Your task to perform on an android device: change keyboard looks Image 0: 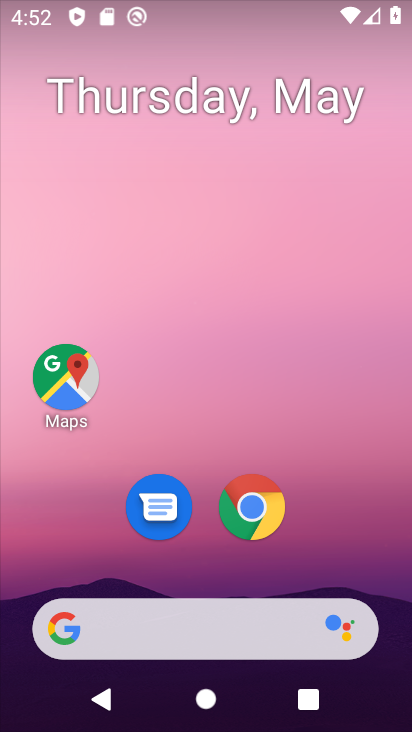
Step 0: drag from (320, 512) to (282, 0)
Your task to perform on an android device: change keyboard looks Image 1: 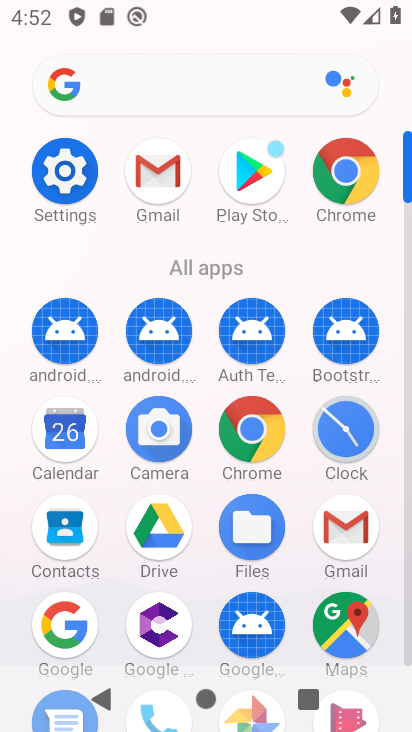
Step 1: click (68, 152)
Your task to perform on an android device: change keyboard looks Image 2: 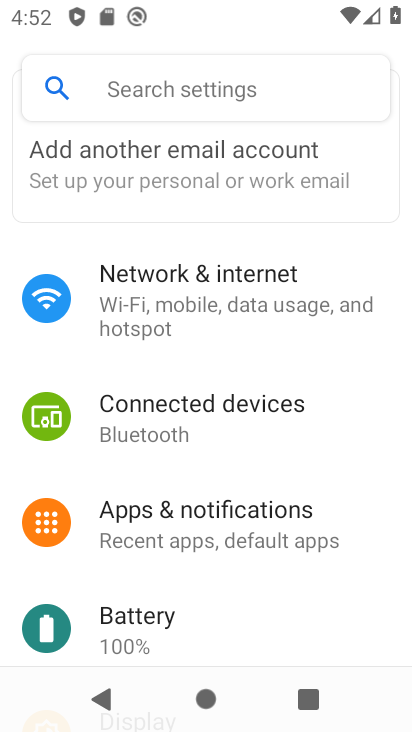
Step 2: drag from (210, 573) to (284, 49)
Your task to perform on an android device: change keyboard looks Image 3: 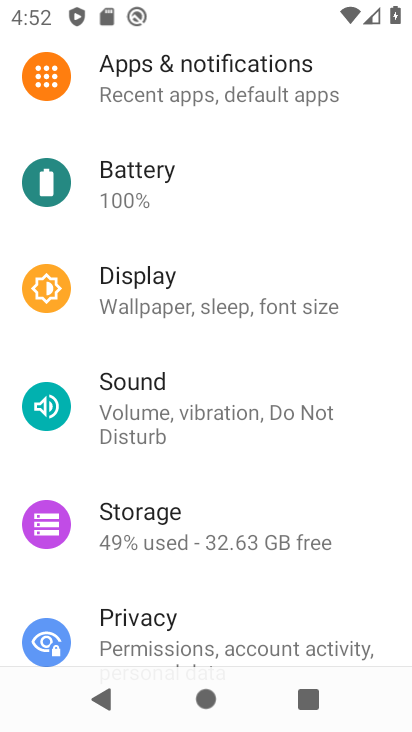
Step 3: drag from (184, 539) to (274, 195)
Your task to perform on an android device: change keyboard looks Image 4: 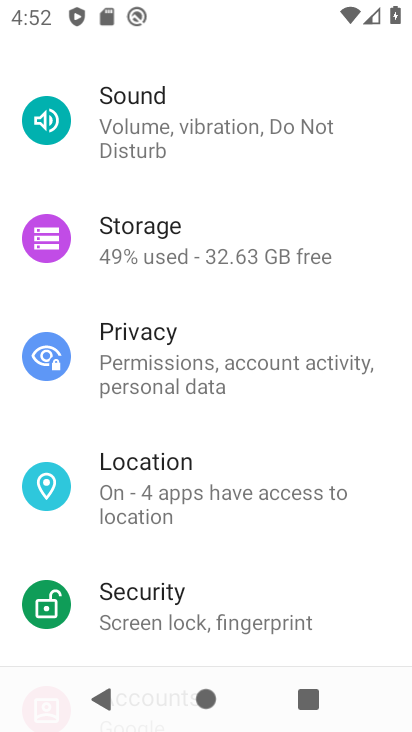
Step 4: drag from (216, 543) to (288, 263)
Your task to perform on an android device: change keyboard looks Image 5: 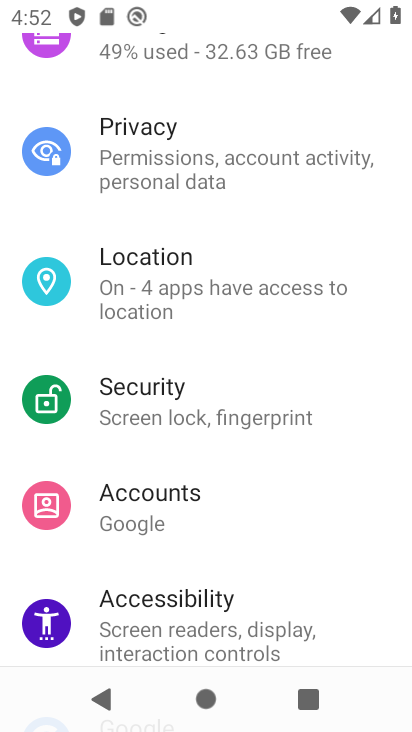
Step 5: drag from (277, 198) to (317, 116)
Your task to perform on an android device: change keyboard looks Image 6: 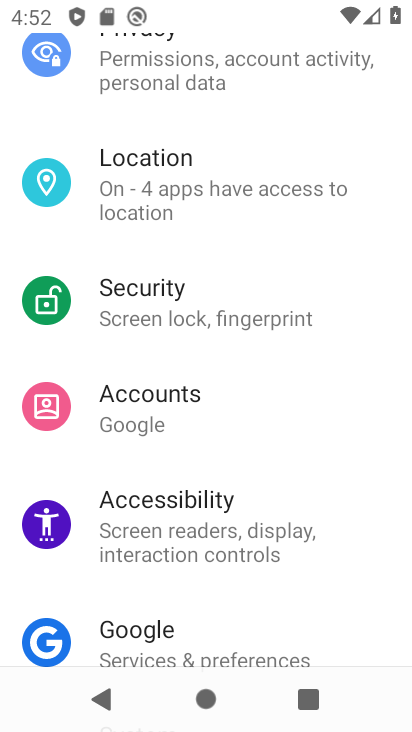
Step 6: drag from (272, 543) to (312, 83)
Your task to perform on an android device: change keyboard looks Image 7: 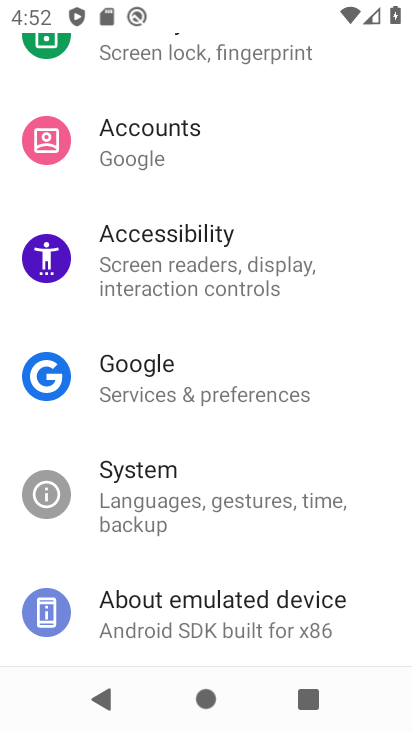
Step 7: click (155, 481)
Your task to perform on an android device: change keyboard looks Image 8: 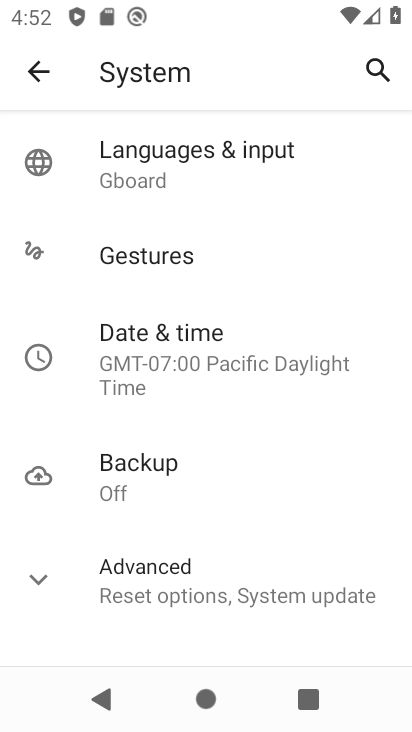
Step 8: click (182, 171)
Your task to perform on an android device: change keyboard looks Image 9: 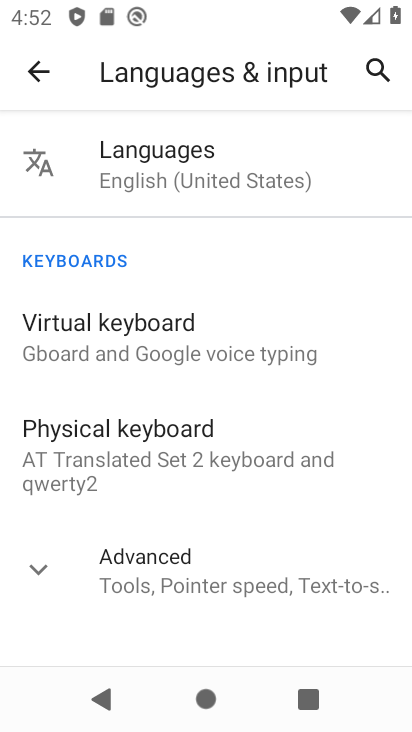
Step 9: click (164, 353)
Your task to perform on an android device: change keyboard looks Image 10: 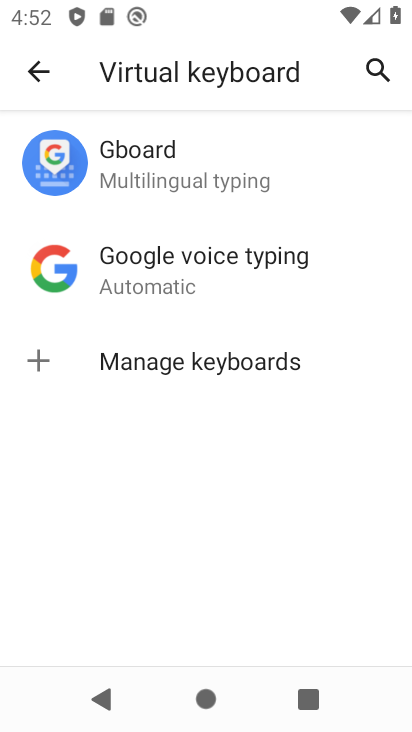
Step 10: click (178, 167)
Your task to perform on an android device: change keyboard looks Image 11: 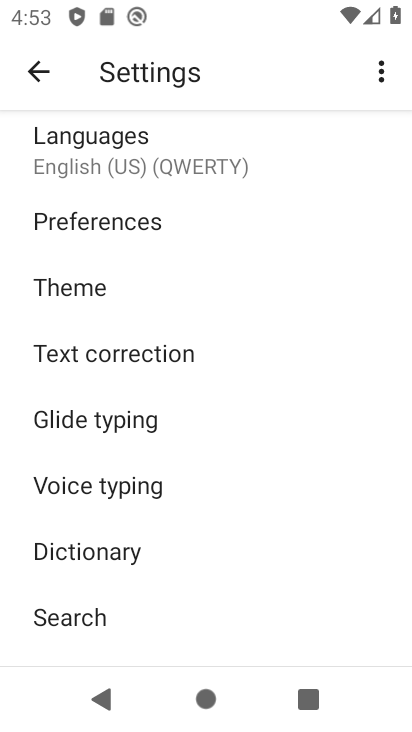
Step 11: click (93, 284)
Your task to perform on an android device: change keyboard looks Image 12: 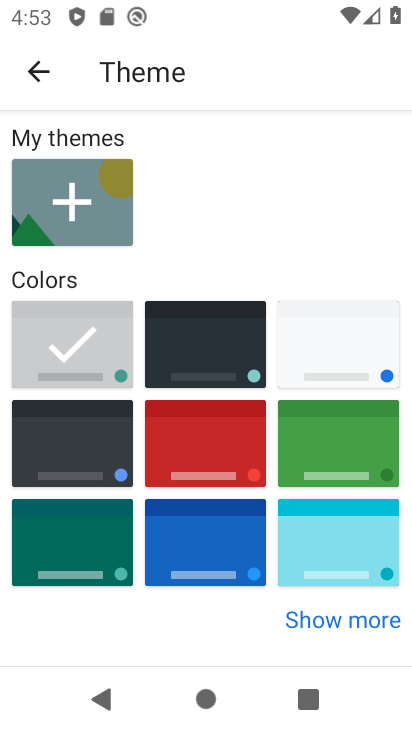
Step 12: click (376, 342)
Your task to perform on an android device: change keyboard looks Image 13: 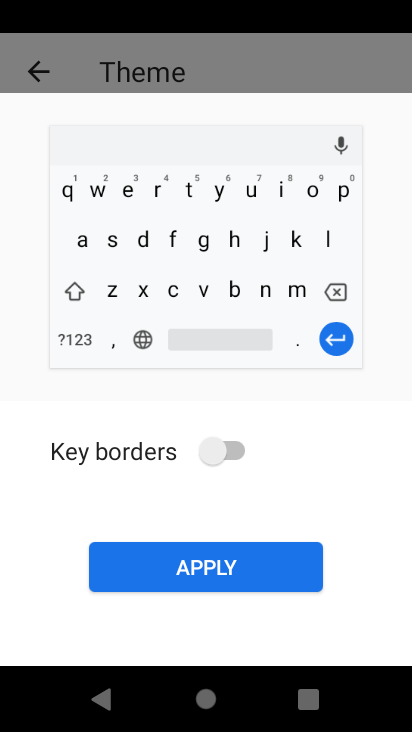
Step 13: click (255, 590)
Your task to perform on an android device: change keyboard looks Image 14: 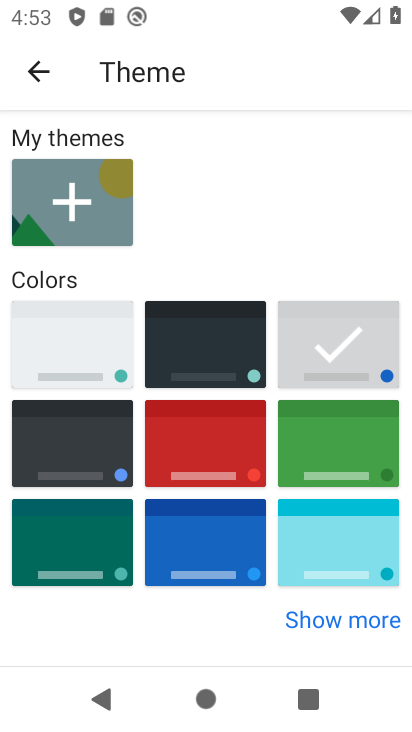
Step 14: task complete